Your task to perform on an android device: change the clock display to show seconds Image 0: 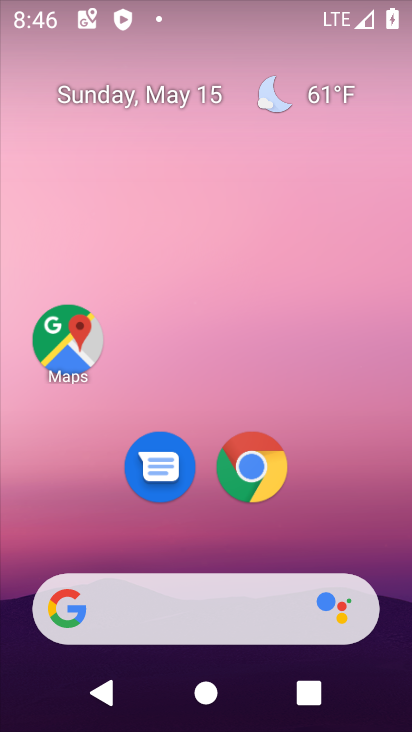
Step 0: drag from (195, 533) to (205, 73)
Your task to perform on an android device: change the clock display to show seconds Image 1: 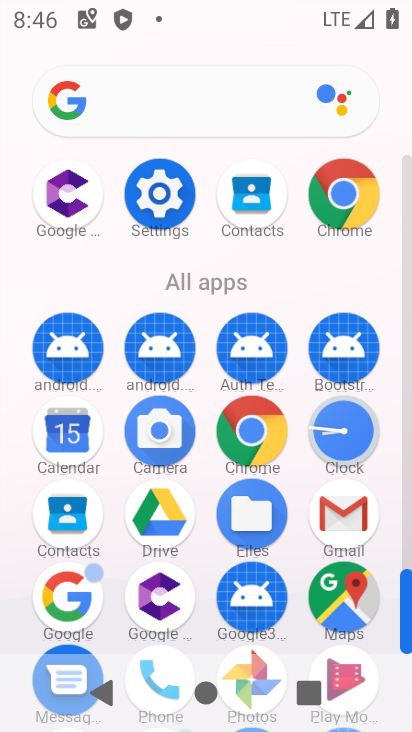
Step 1: click (341, 417)
Your task to perform on an android device: change the clock display to show seconds Image 2: 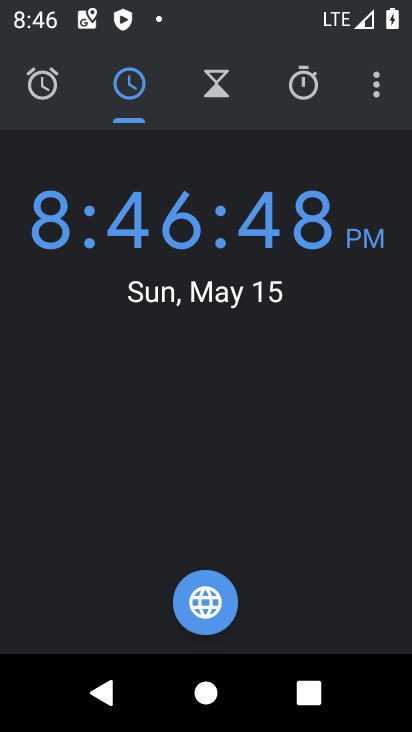
Step 2: click (384, 84)
Your task to perform on an android device: change the clock display to show seconds Image 3: 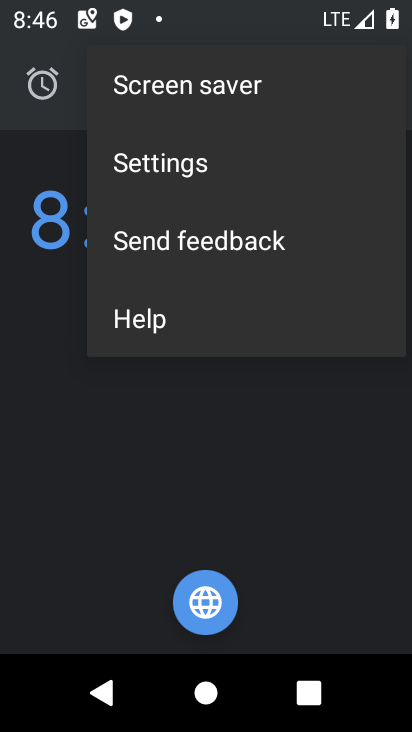
Step 3: click (196, 177)
Your task to perform on an android device: change the clock display to show seconds Image 4: 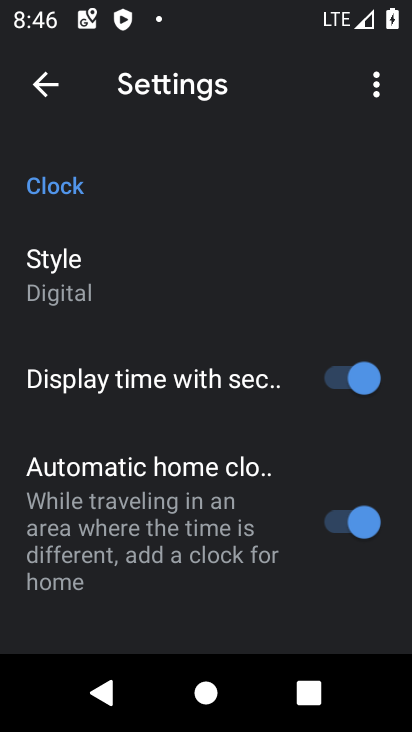
Step 4: task complete